Your task to perform on an android device: Open the Play Movies app and select the watchlist tab. Image 0: 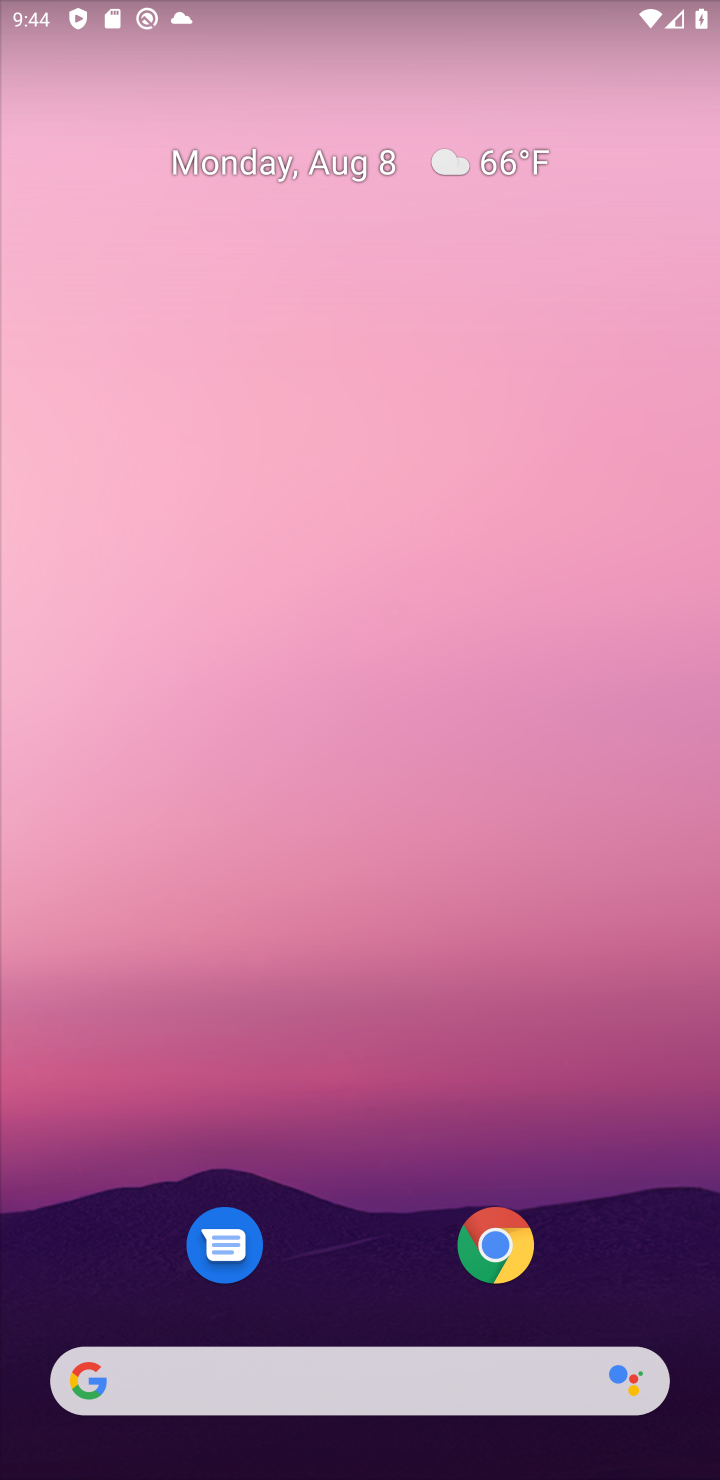
Step 0: drag from (355, 1255) to (365, 159)
Your task to perform on an android device: Open the Play Movies app and select the watchlist tab. Image 1: 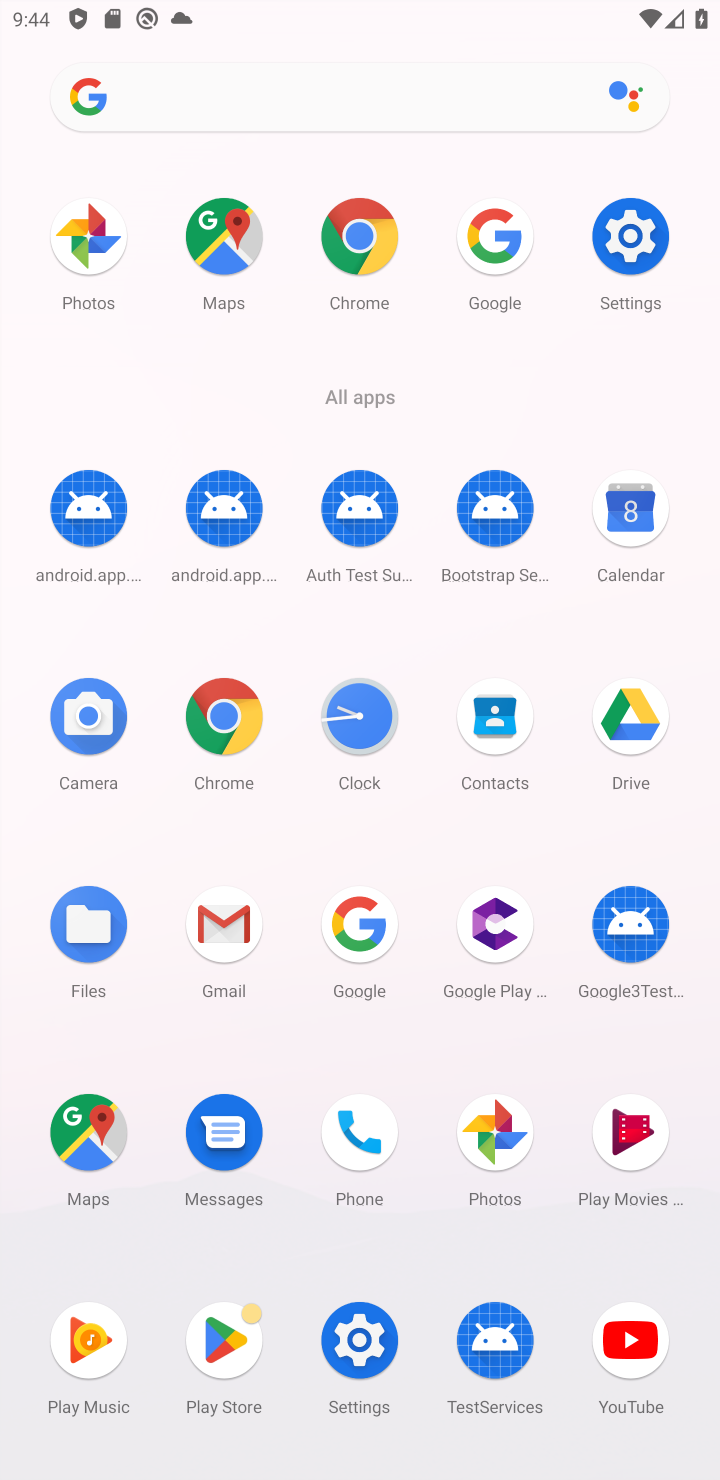
Step 1: click (619, 1138)
Your task to perform on an android device: Open the Play Movies app and select the watchlist tab. Image 2: 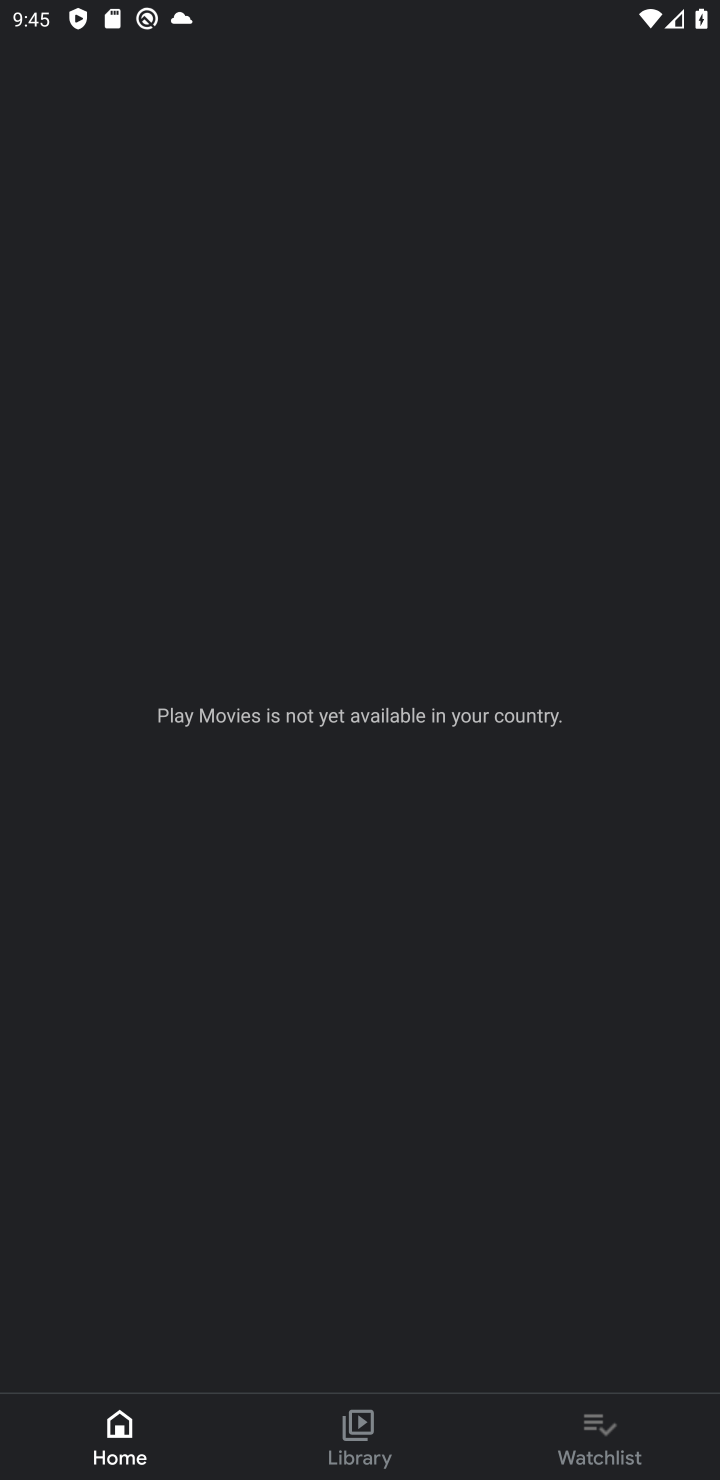
Step 2: click (590, 1417)
Your task to perform on an android device: Open the Play Movies app and select the watchlist tab. Image 3: 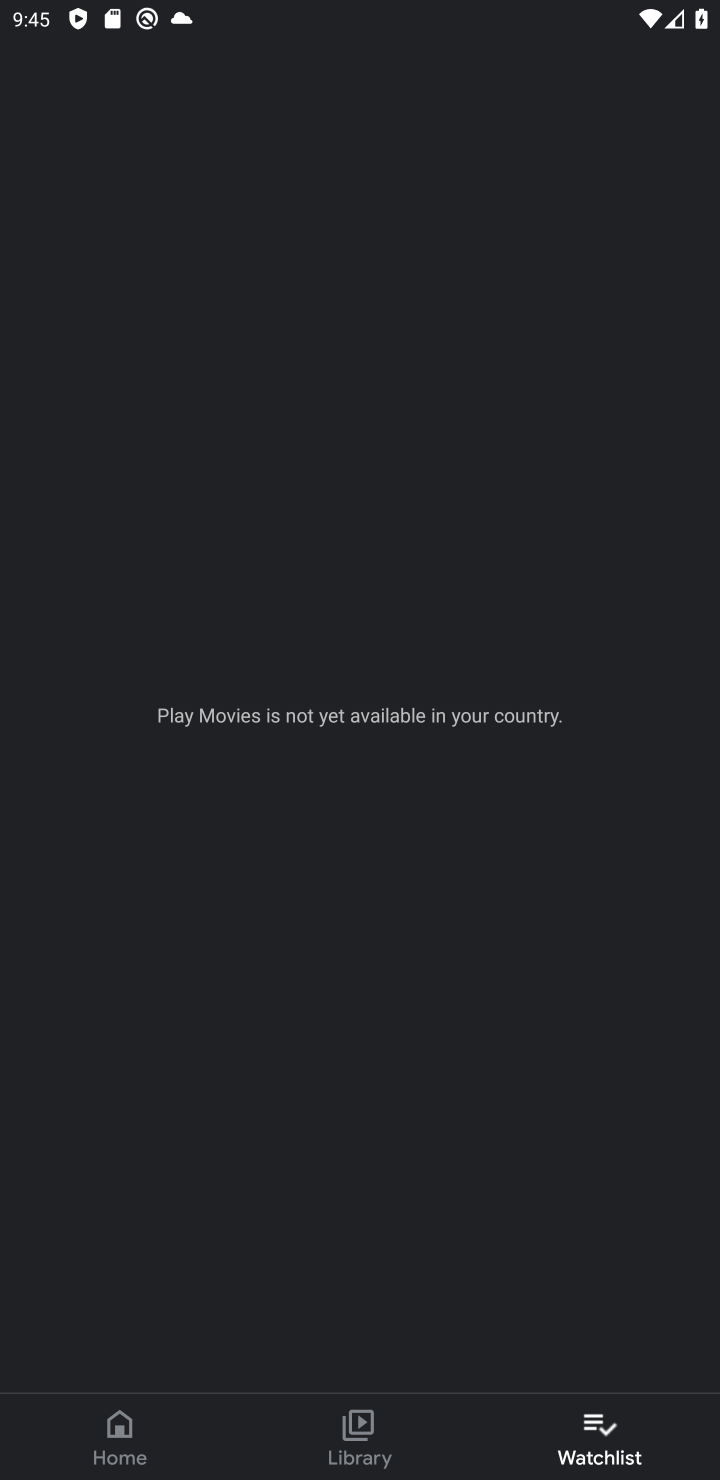
Step 3: task complete